Your task to perform on an android device: turn on notifications settings in the gmail app Image 0: 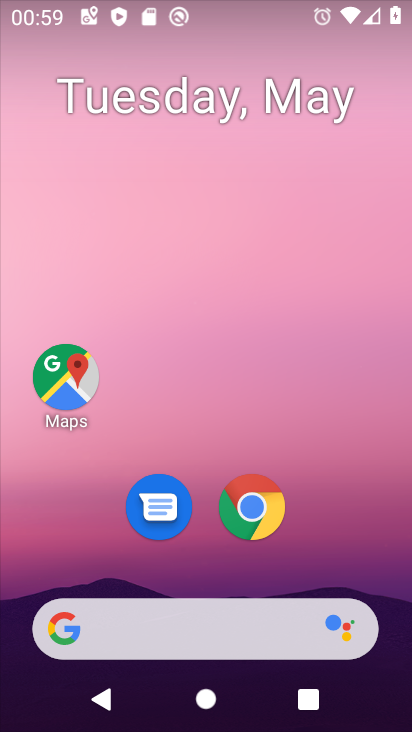
Step 0: drag from (220, 594) to (204, 256)
Your task to perform on an android device: turn on notifications settings in the gmail app Image 1: 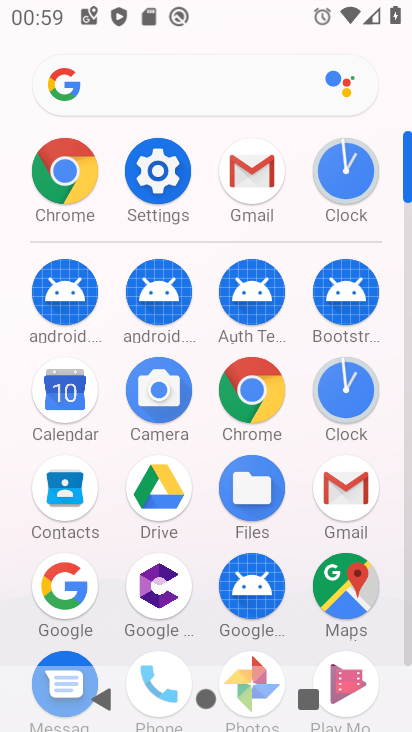
Step 1: click (337, 488)
Your task to perform on an android device: turn on notifications settings in the gmail app Image 2: 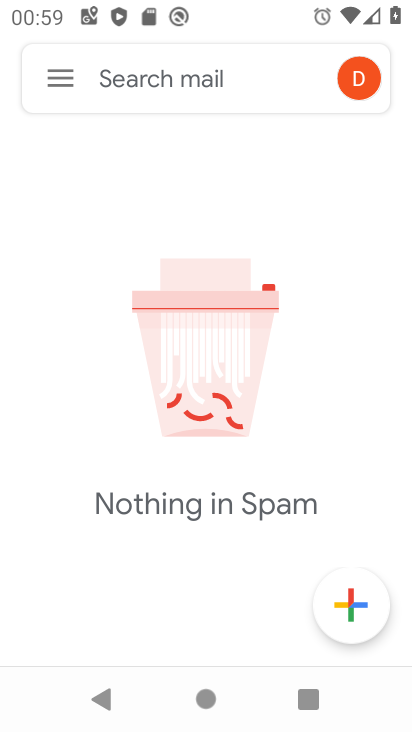
Step 2: click (44, 86)
Your task to perform on an android device: turn on notifications settings in the gmail app Image 3: 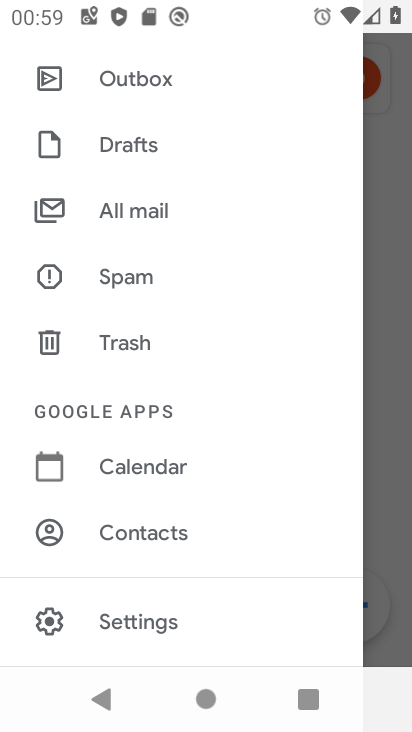
Step 3: click (156, 624)
Your task to perform on an android device: turn on notifications settings in the gmail app Image 4: 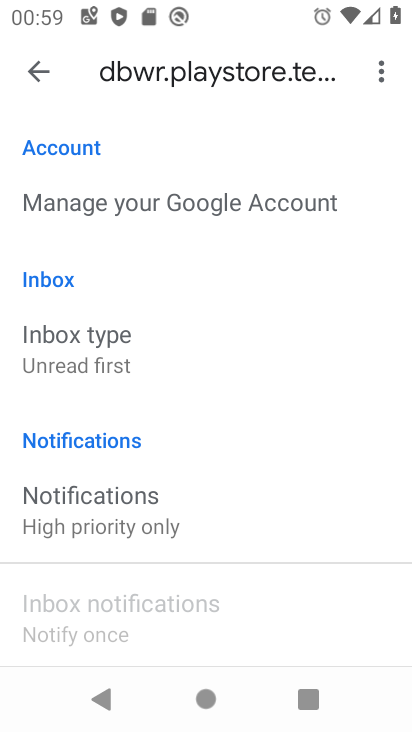
Step 4: drag from (134, 641) to (119, 311)
Your task to perform on an android device: turn on notifications settings in the gmail app Image 5: 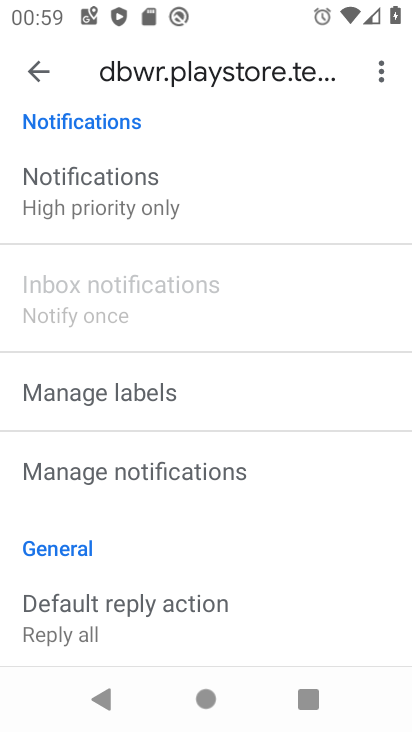
Step 5: click (41, 72)
Your task to perform on an android device: turn on notifications settings in the gmail app Image 6: 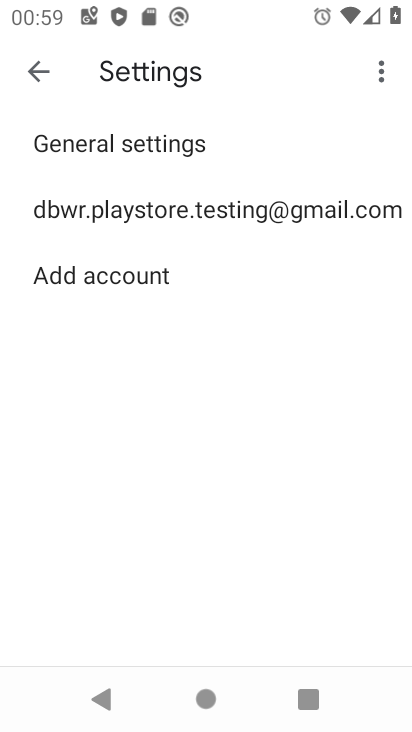
Step 6: click (92, 154)
Your task to perform on an android device: turn on notifications settings in the gmail app Image 7: 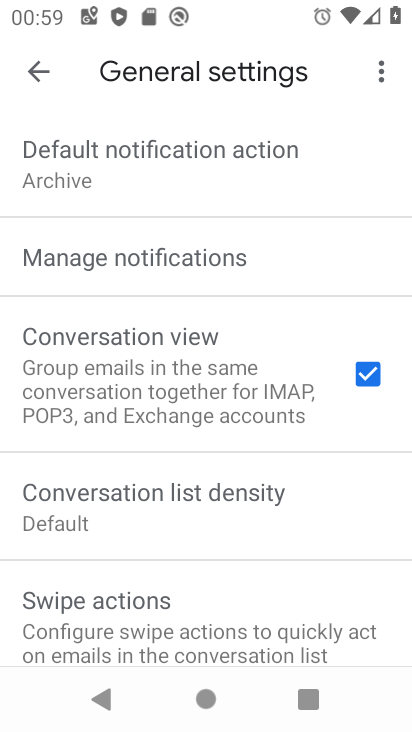
Step 7: click (99, 256)
Your task to perform on an android device: turn on notifications settings in the gmail app Image 8: 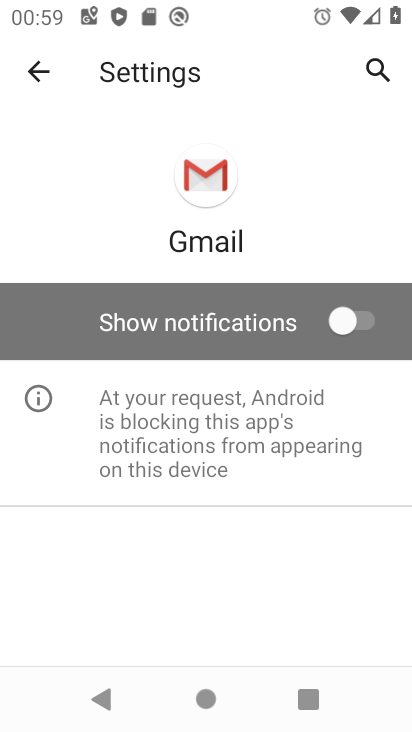
Step 8: click (355, 322)
Your task to perform on an android device: turn on notifications settings in the gmail app Image 9: 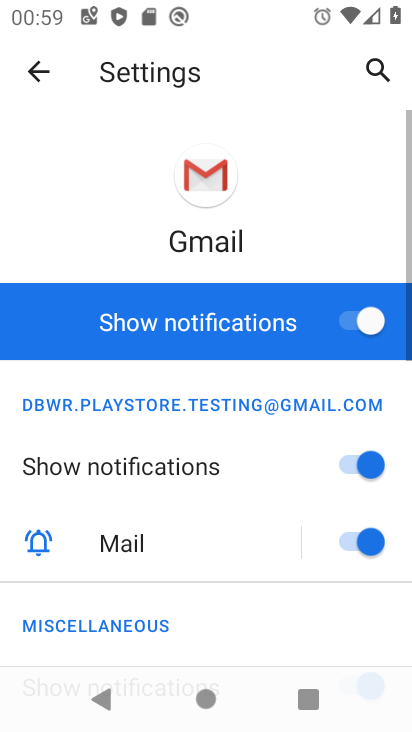
Step 9: task complete